Your task to perform on an android device: open app "eBay: The shopping marketplace" (install if not already installed), go to login, and select forgot password Image 0: 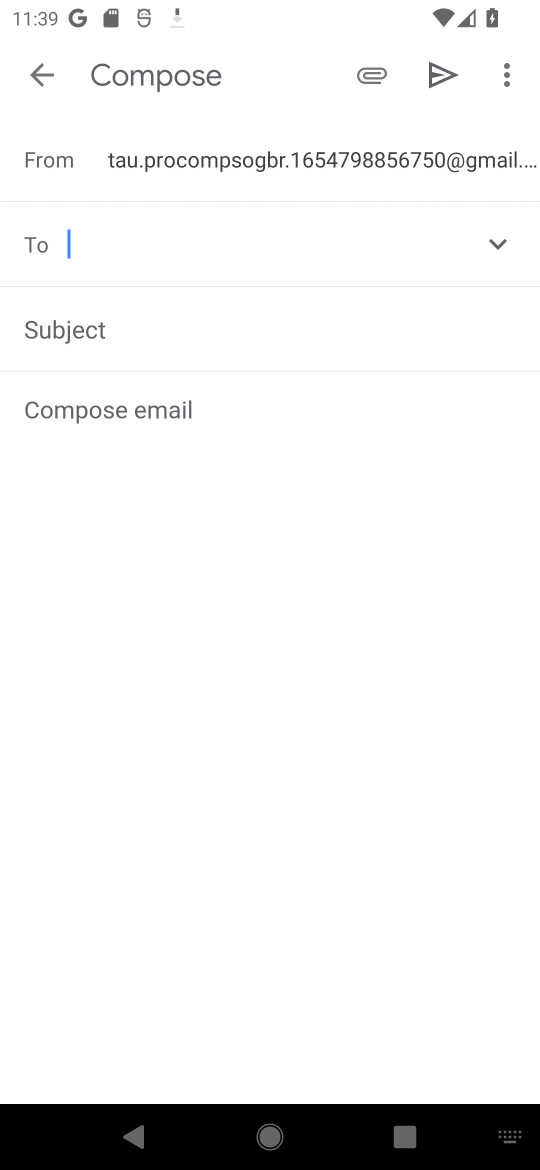
Step 0: press back button
Your task to perform on an android device: open app "eBay: The shopping marketplace" (install if not already installed), go to login, and select forgot password Image 1: 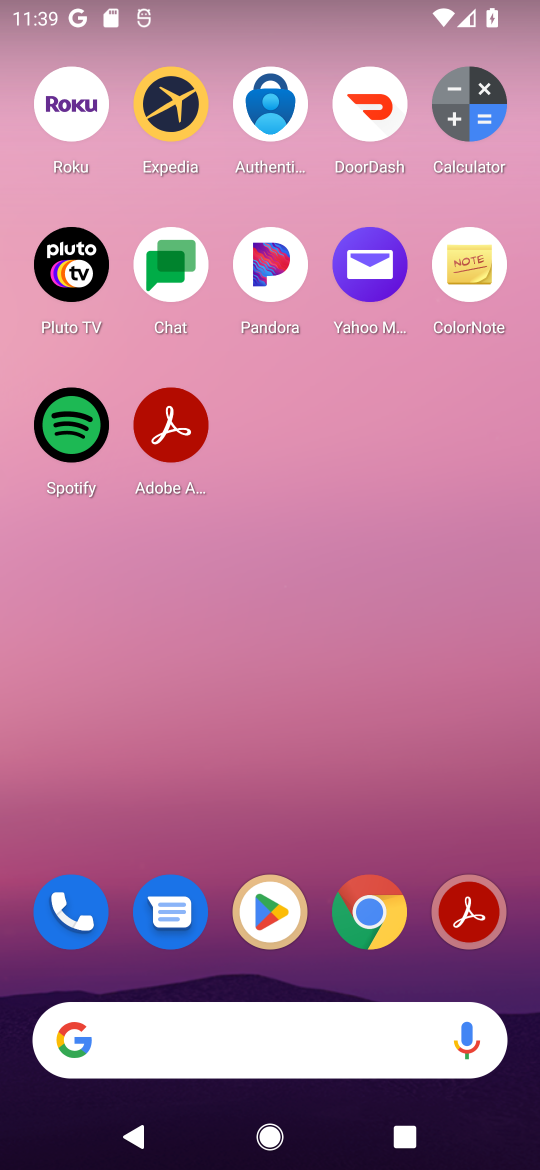
Step 1: click (263, 908)
Your task to perform on an android device: open app "eBay: The shopping marketplace" (install if not already installed), go to login, and select forgot password Image 2: 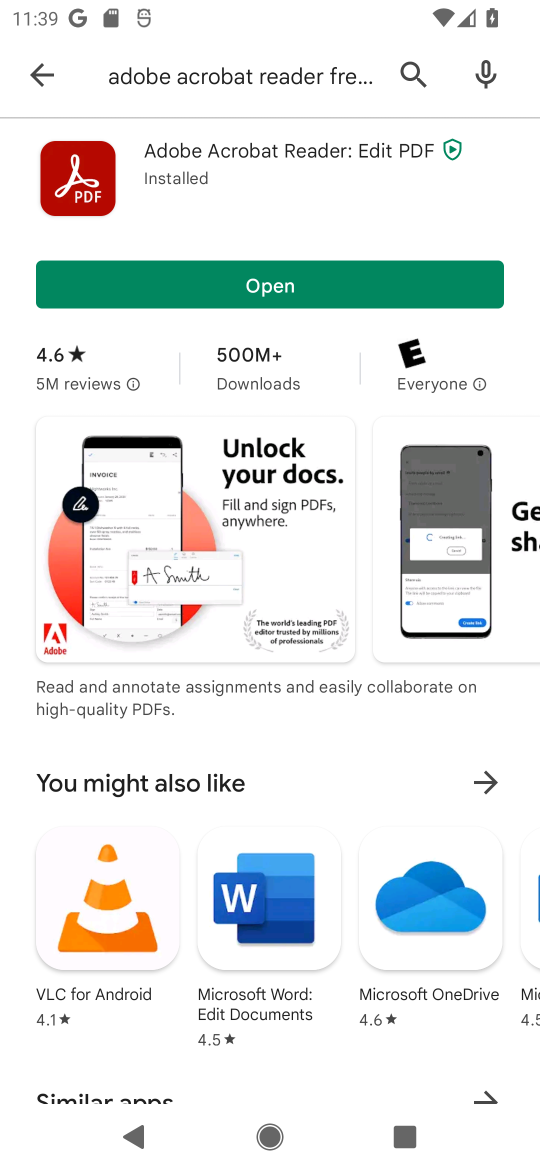
Step 2: click (400, 58)
Your task to perform on an android device: open app "eBay: The shopping marketplace" (install if not already installed), go to login, and select forgot password Image 3: 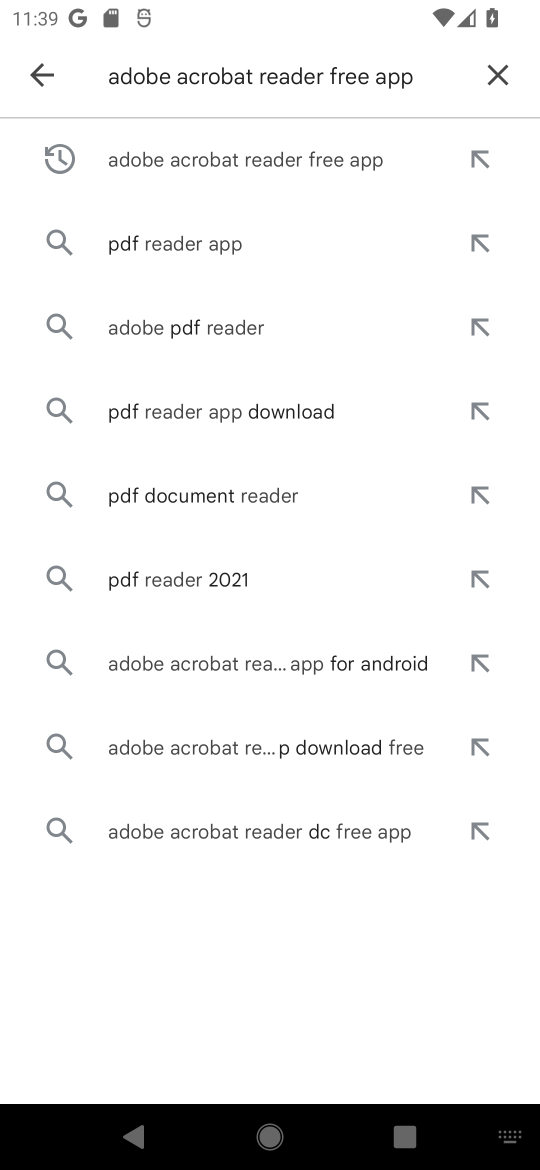
Step 3: click (493, 63)
Your task to perform on an android device: open app "eBay: The shopping marketplace" (install if not already installed), go to login, and select forgot password Image 4: 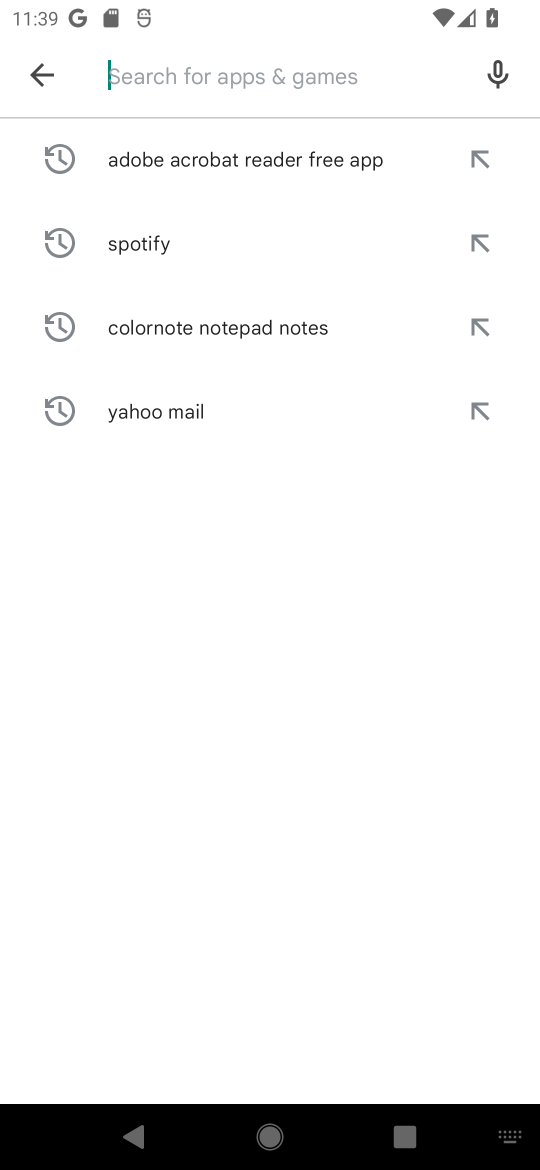
Step 4: type "ebay"
Your task to perform on an android device: open app "eBay: The shopping marketplace" (install if not already installed), go to login, and select forgot password Image 5: 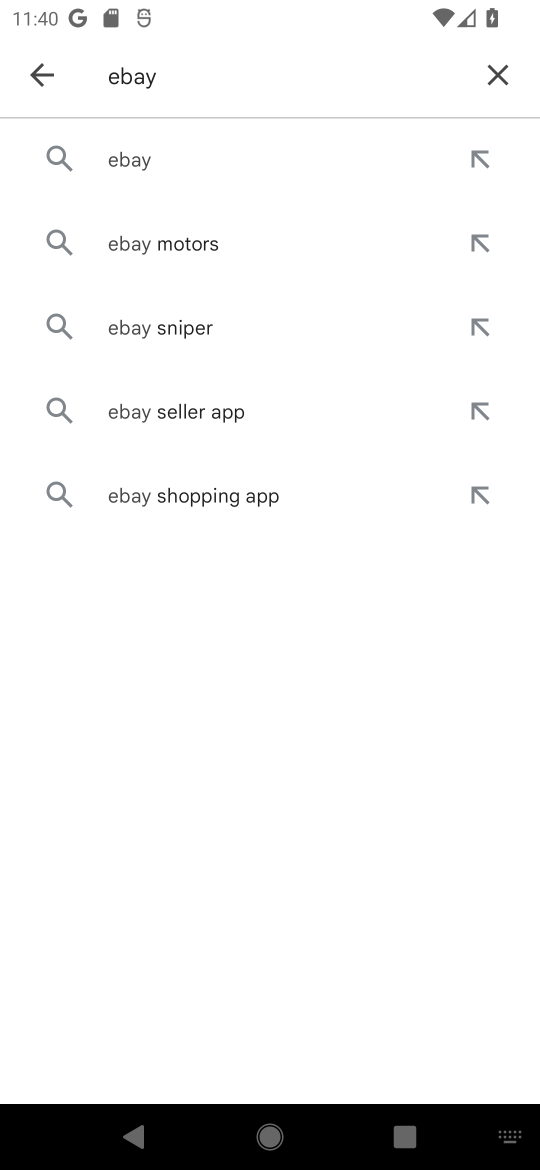
Step 5: click (181, 156)
Your task to perform on an android device: open app "eBay: The shopping marketplace" (install if not already installed), go to login, and select forgot password Image 6: 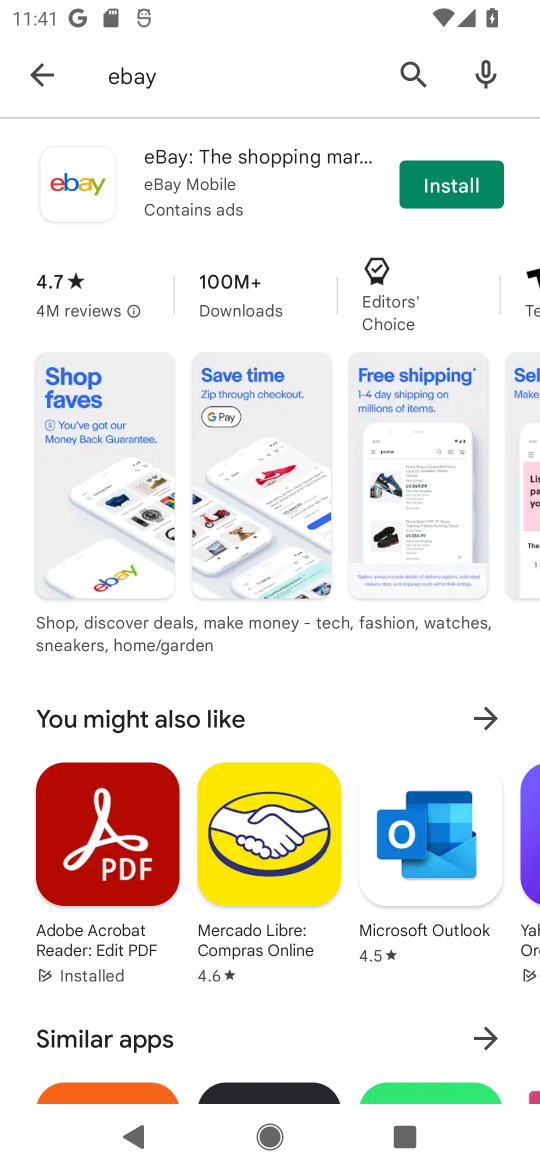
Step 6: click (455, 190)
Your task to perform on an android device: open app "eBay: The shopping marketplace" (install if not already installed), go to login, and select forgot password Image 7: 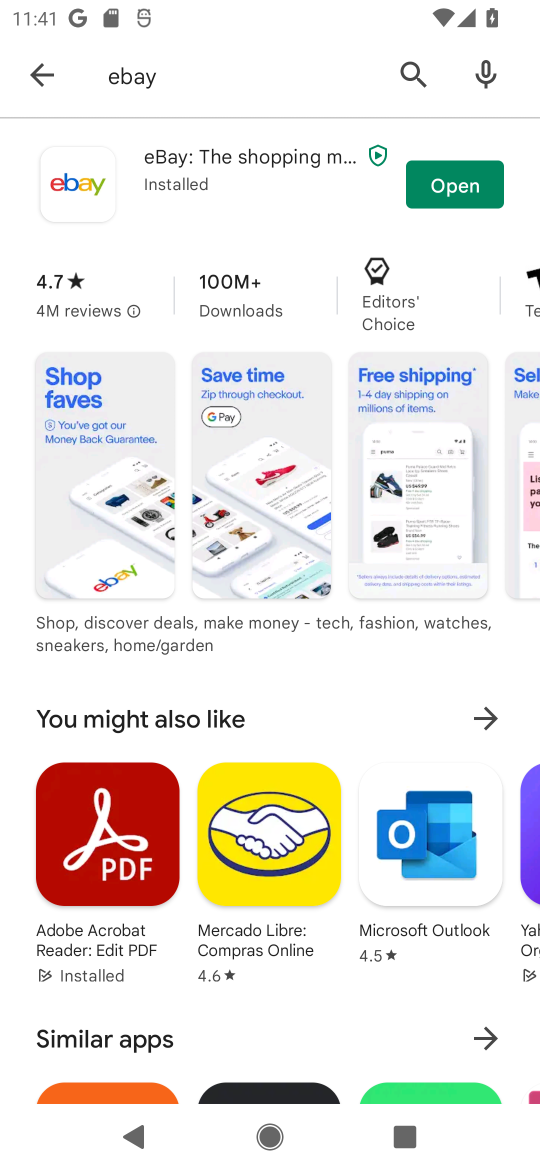
Step 7: click (434, 197)
Your task to perform on an android device: open app "eBay: The shopping marketplace" (install if not already installed), go to login, and select forgot password Image 8: 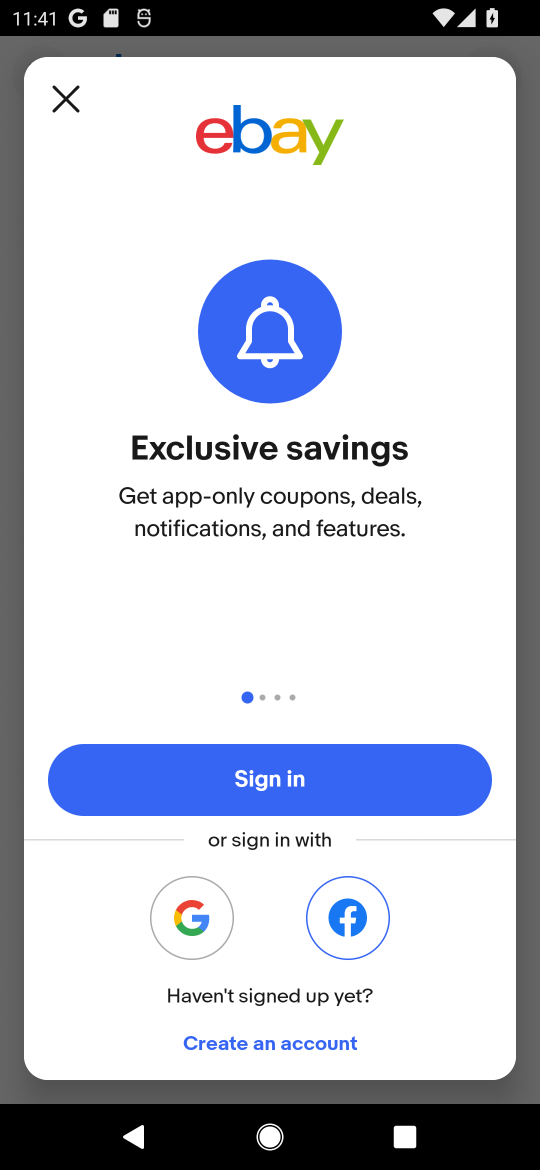
Step 8: click (284, 786)
Your task to perform on an android device: open app "eBay: The shopping marketplace" (install if not already installed), go to login, and select forgot password Image 9: 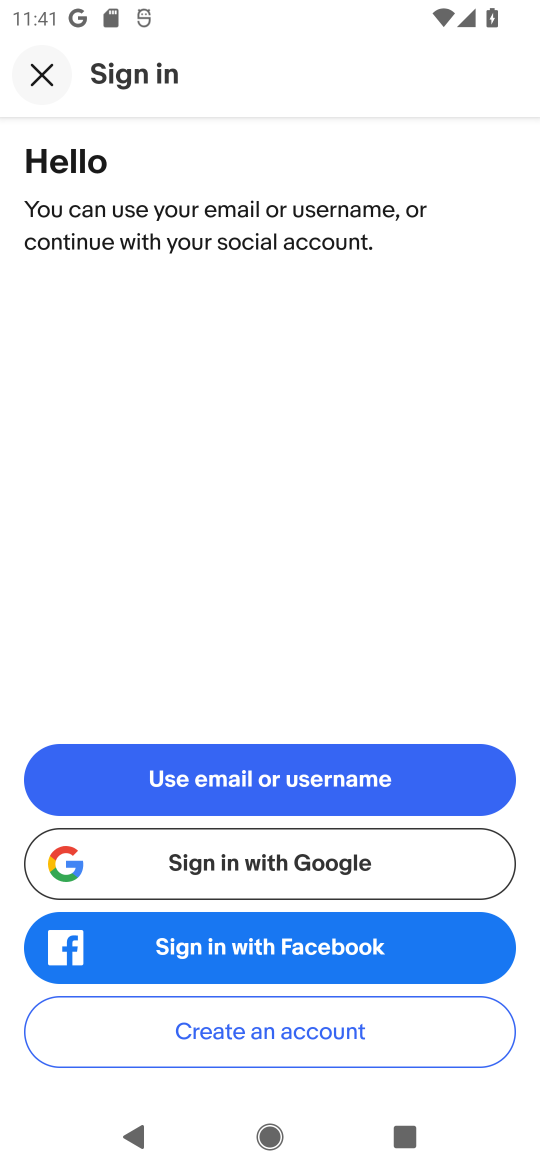
Step 9: drag from (246, 739) to (364, 134)
Your task to perform on an android device: open app "eBay: The shopping marketplace" (install if not already installed), go to login, and select forgot password Image 10: 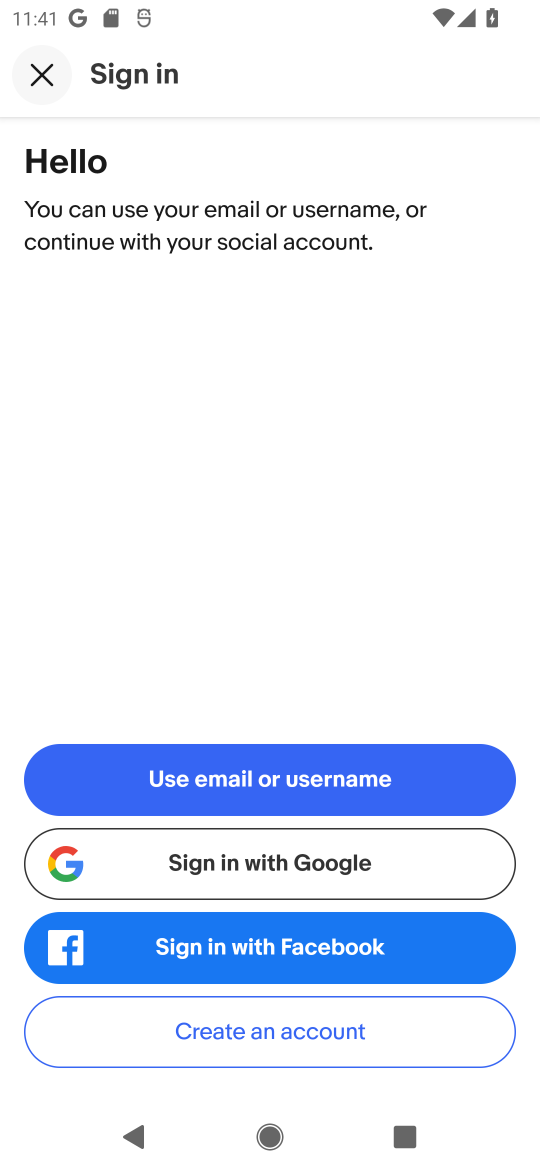
Step 10: click (275, 770)
Your task to perform on an android device: open app "eBay: The shopping marketplace" (install if not already installed), go to login, and select forgot password Image 11: 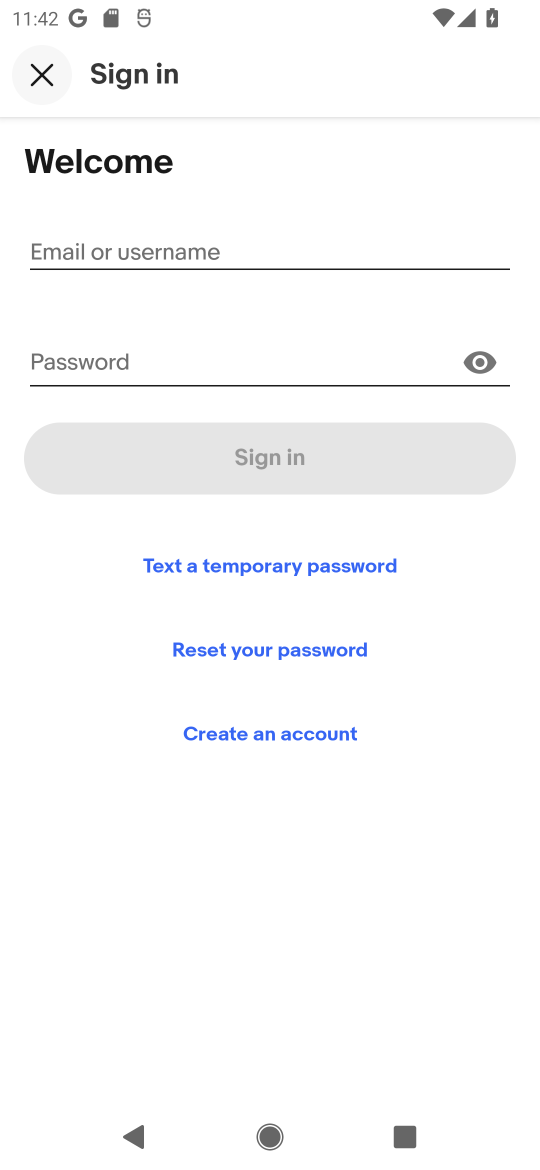
Step 11: click (283, 653)
Your task to perform on an android device: open app "eBay: The shopping marketplace" (install if not already installed), go to login, and select forgot password Image 12: 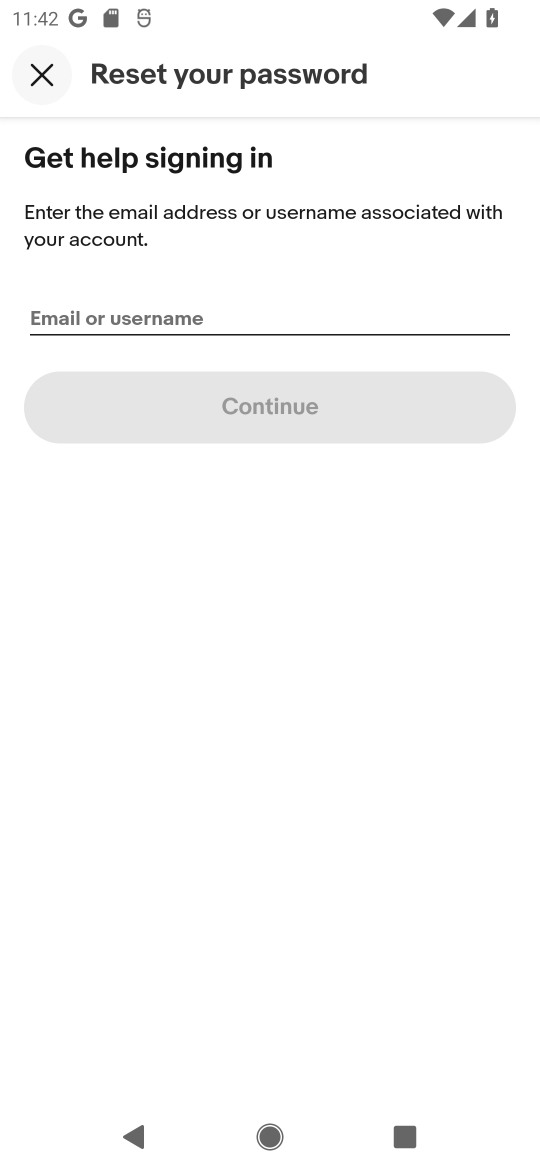
Step 12: task complete